Your task to perform on an android device: Open the map Image 0: 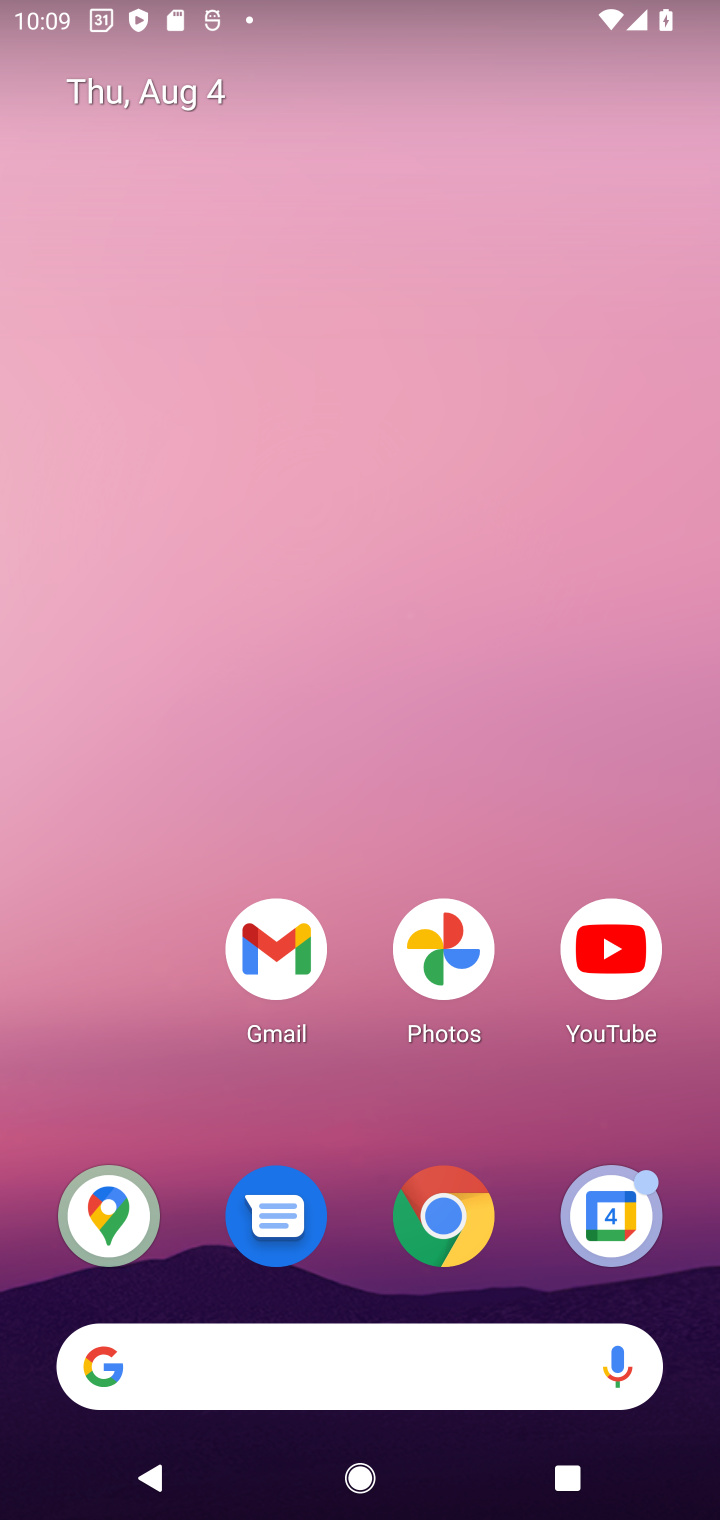
Step 0: click (102, 1218)
Your task to perform on an android device: Open the map Image 1: 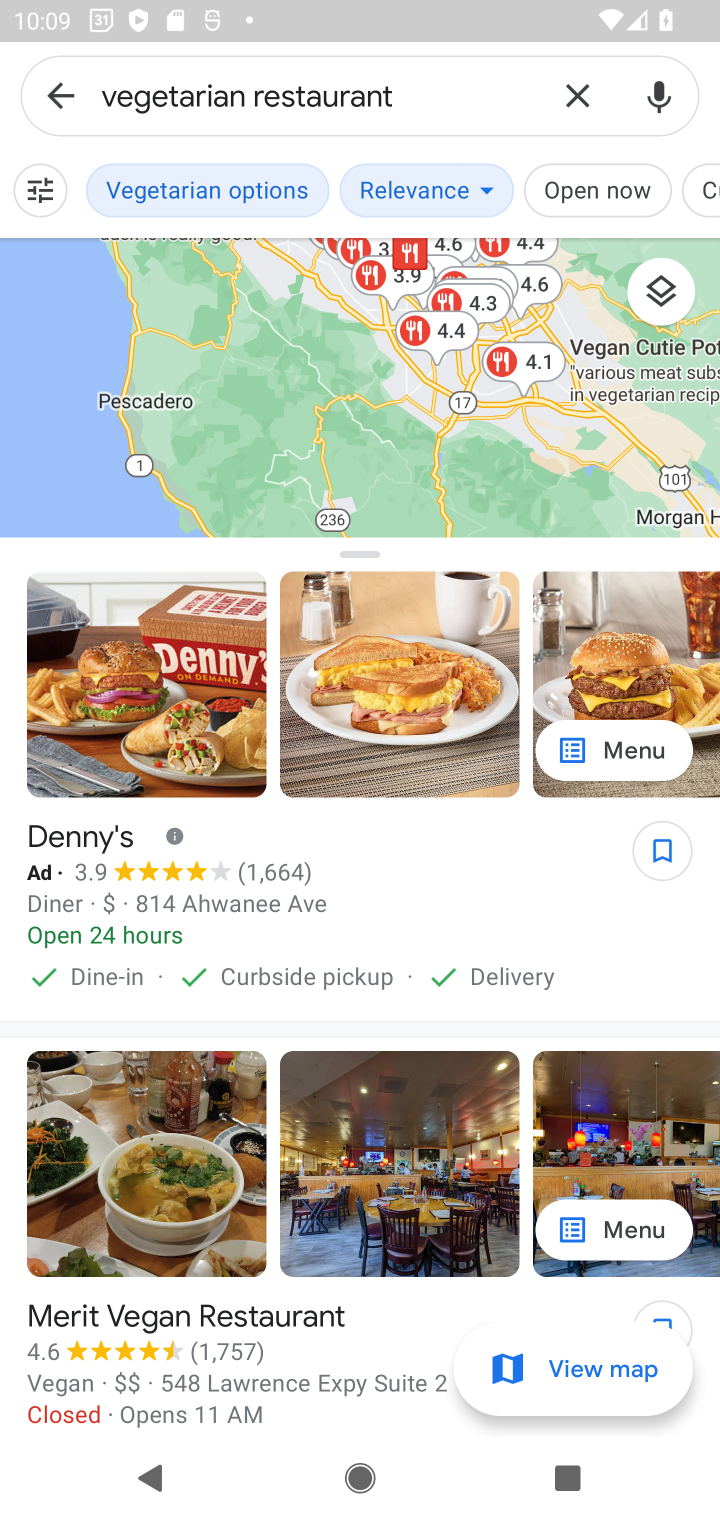
Step 1: task complete